Your task to perform on an android device: Go to Yahoo.com Image 0: 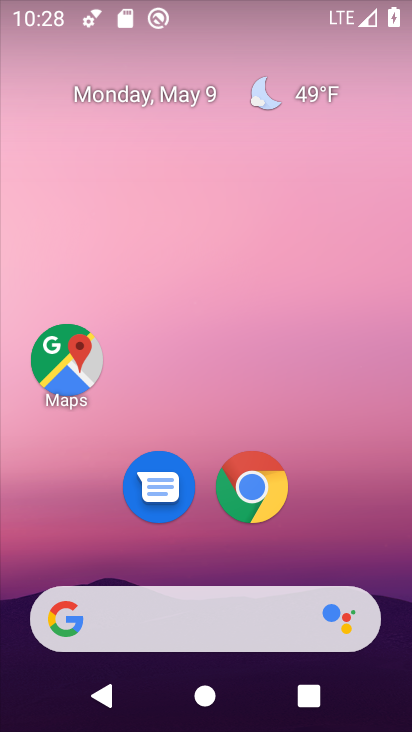
Step 0: click (255, 477)
Your task to perform on an android device: Go to Yahoo.com Image 1: 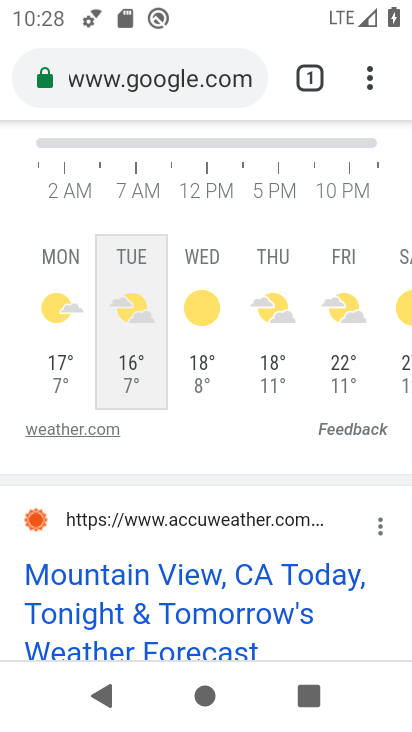
Step 1: click (313, 84)
Your task to perform on an android device: Go to Yahoo.com Image 2: 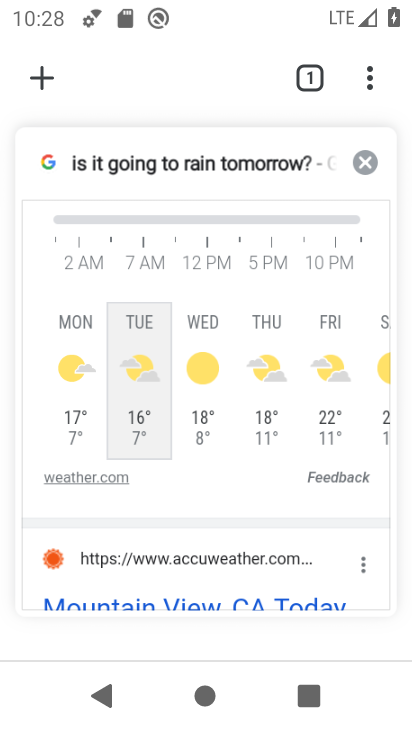
Step 2: click (44, 74)
Your task to perform on an android device: Go to Yahoo.com Image 3: 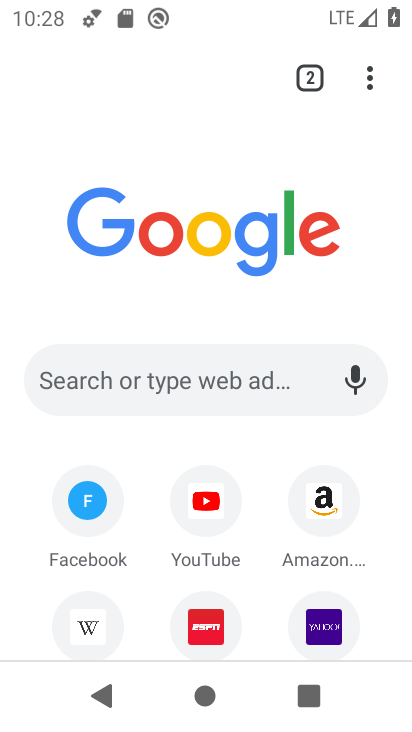
Step 3: click (319, 621)
Your task to perform on an android device: Go to Yahoo.com Image 4: 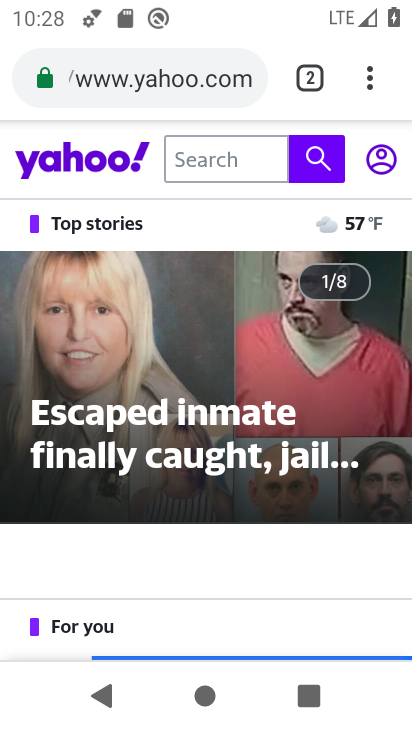
Step 4: drag from (193, 596) to (209, 284)
Your task to perform on an android device: Go to Yahoo.com Image 5: 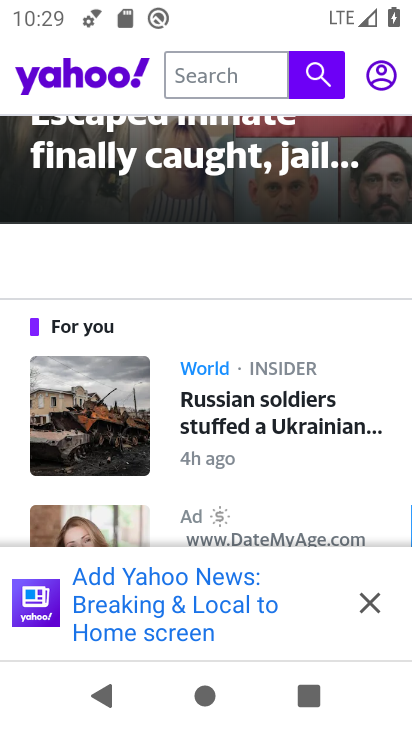
Step 5: click (372, 606)
Your task to perform on an android device: Go to Yahoo.com Image 6: 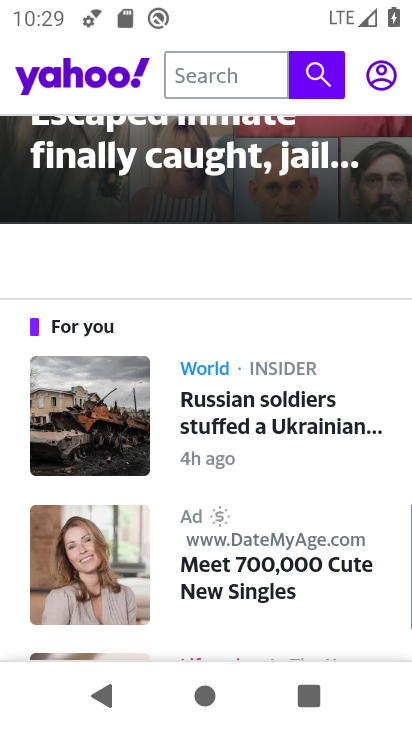
Step 6: task complete